Your task to perform on an android device: Search for sushi restaurants on Maps Image 0: 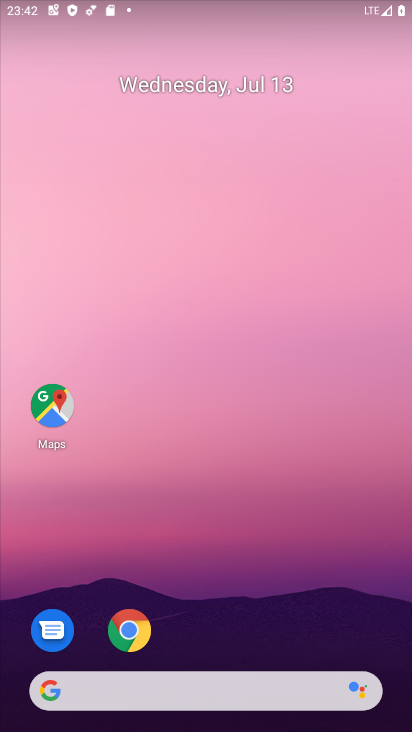
Step 0: drag from (326, 627) to (367, 146)
Your task to perform on an android device: Search for sushi restaurants on Maps Image 1: 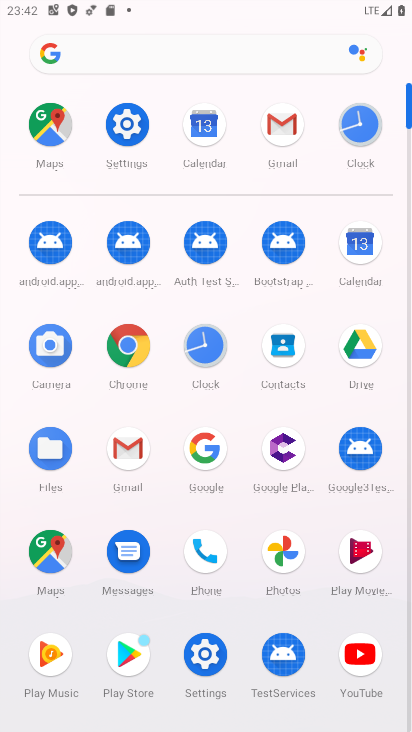
Step 1: click (48, 560)
Your task to perform on an android device: Search for sushi restaurants on Maps Image 2: 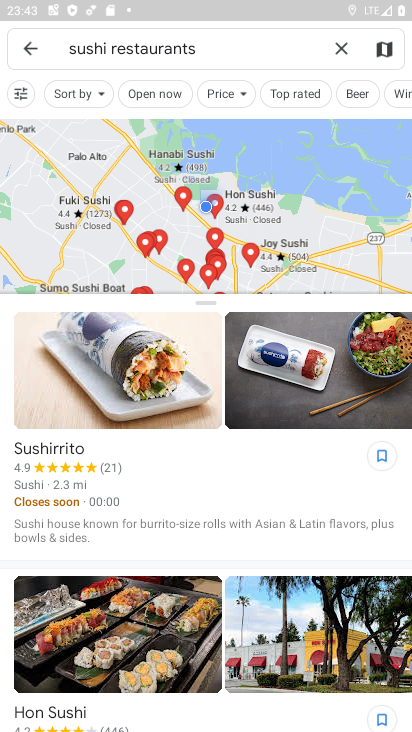
Step 2: task complete